Your task to perform on an android device: change the clock display to show seconds Image 0: 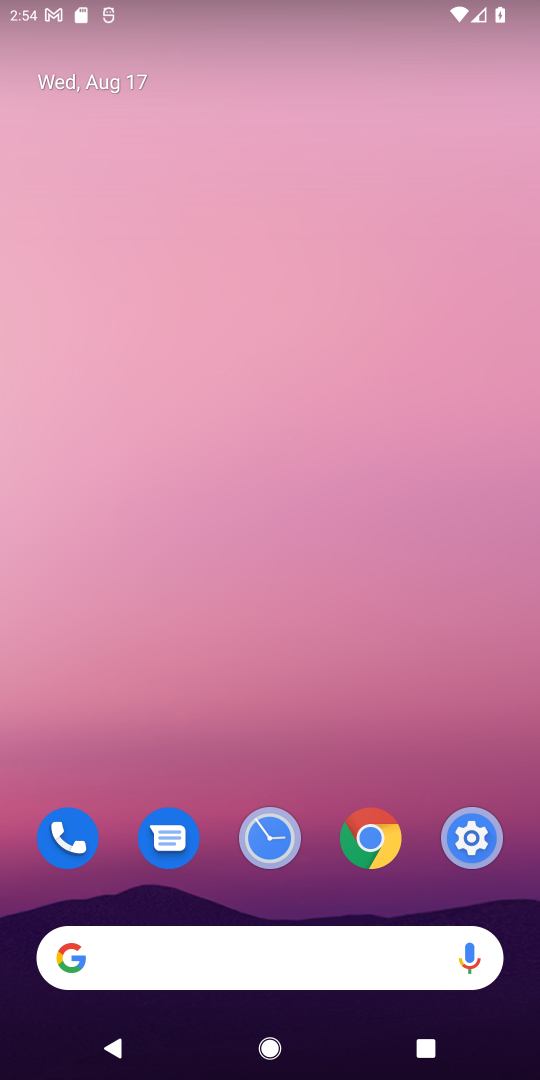
Step 0: drag from (242, 936) to (247, 657)
Your task to perform on an android device: change the clock display to show seconds Image 1: 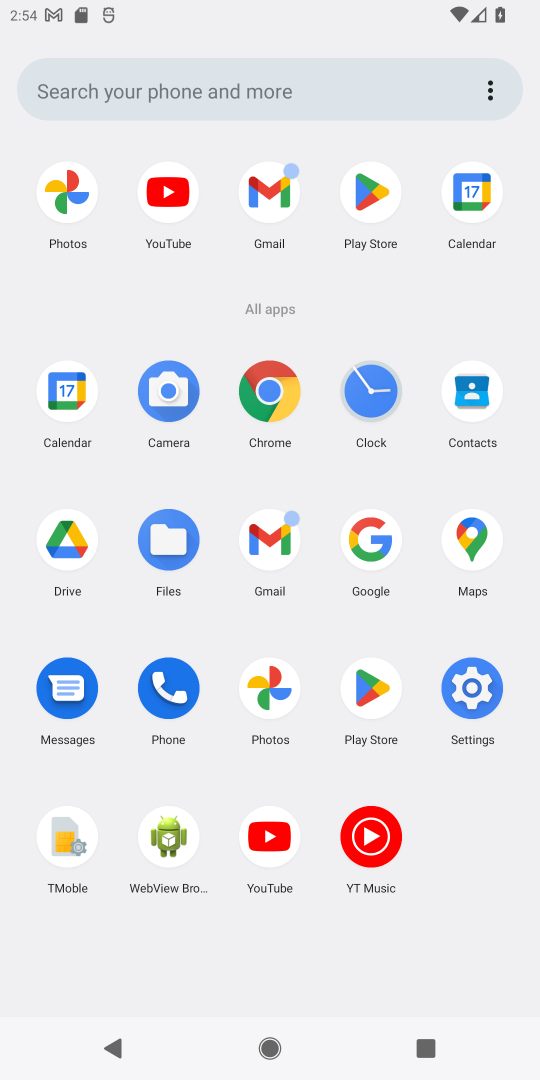
Step 1: click (350, 383)
Your task to perform on an android device: change the clock display to show seconds Image 2: 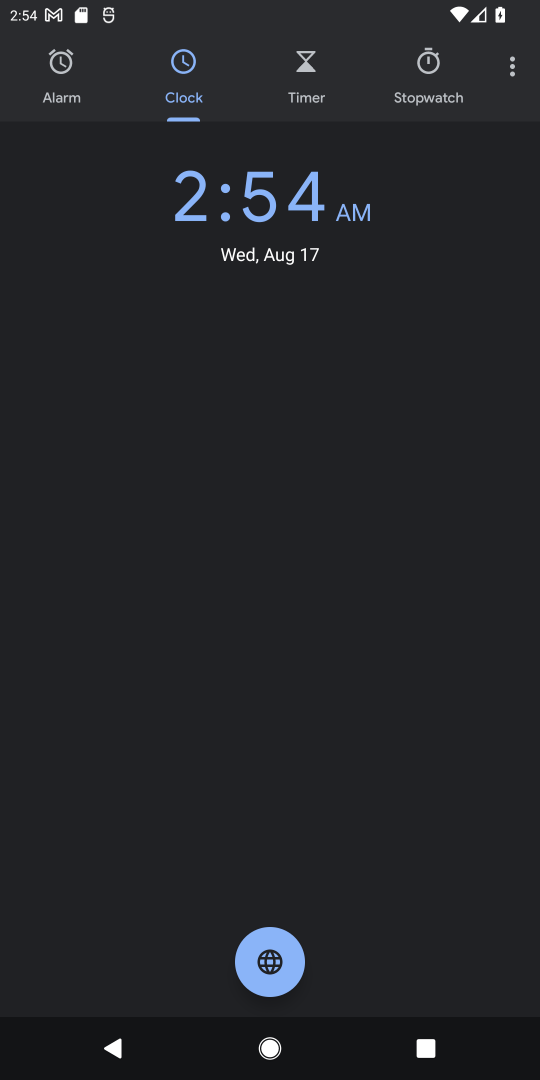
Step 2: click (512, 61)
Your task to perform on an android device: change the clock display to show seconds Image 3: 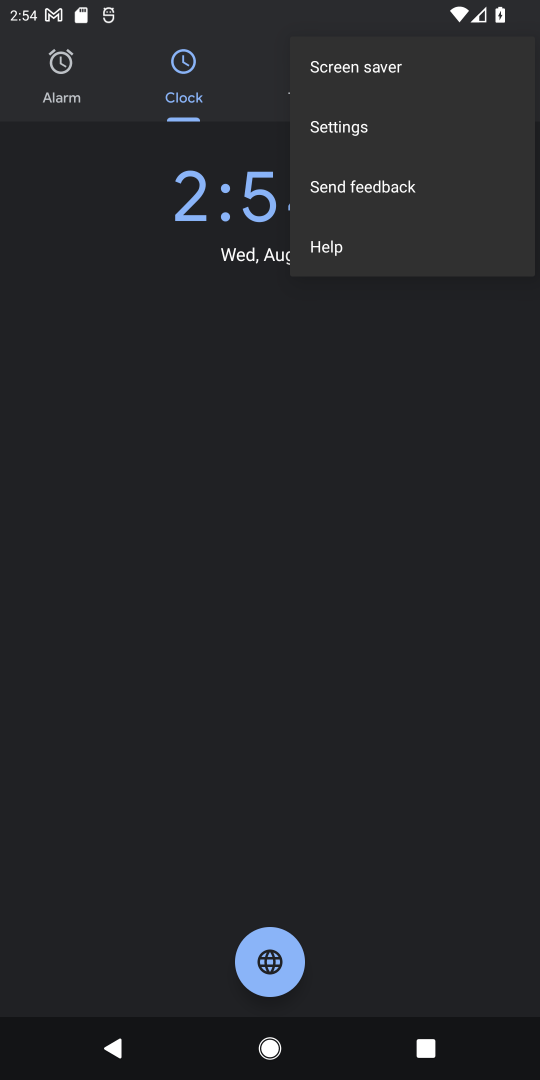
Step 3: click (351, 137)
Your task to perform on an android device: change the clock display to show seconds Image 4: 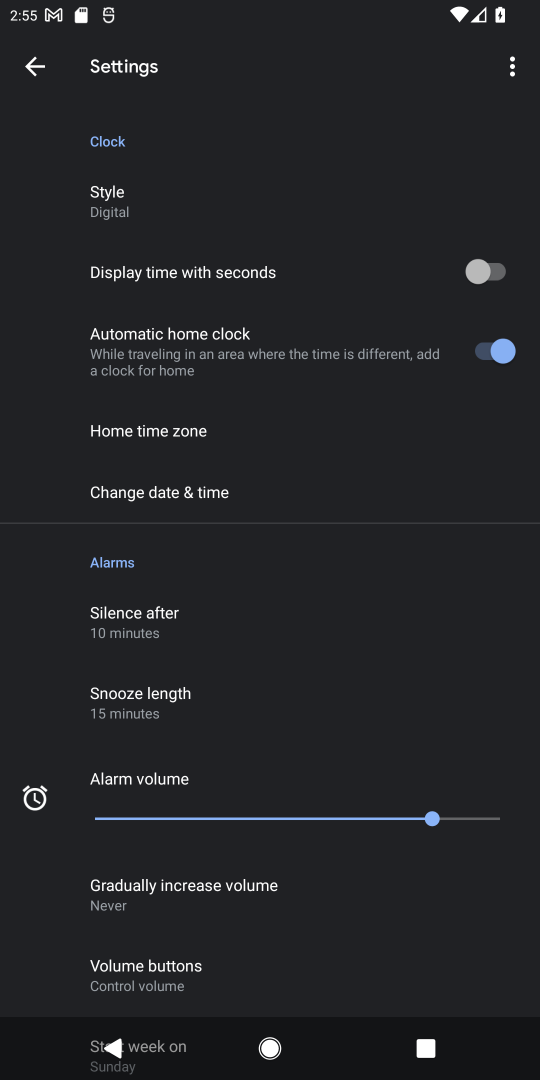
Step 4: click (489, 270)
Your task to perform on an android device: change the clock display to show seconds Image 5: 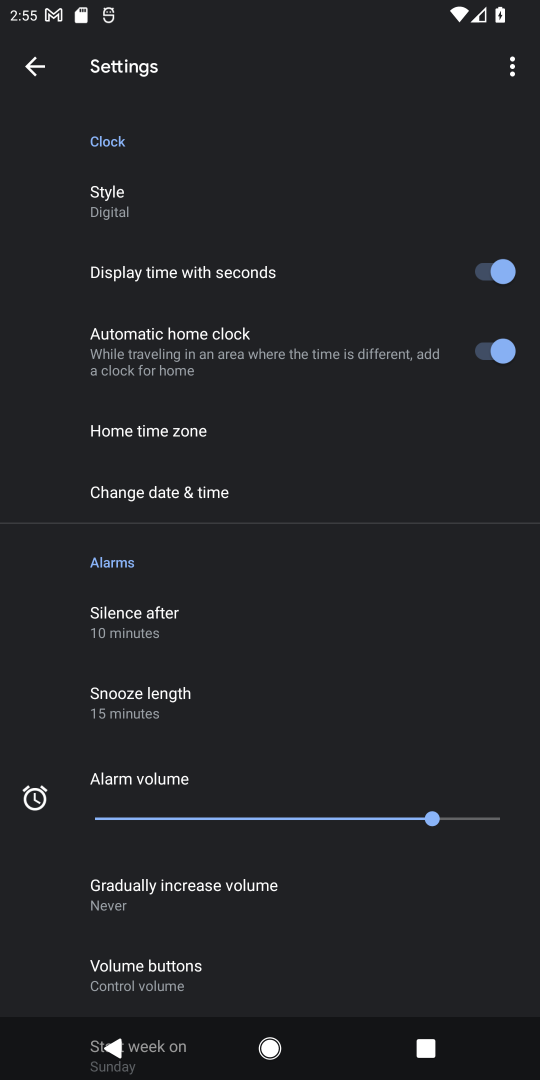
Step 5: task complete